Your task to perform on an android device: toggle wifi Image 0: 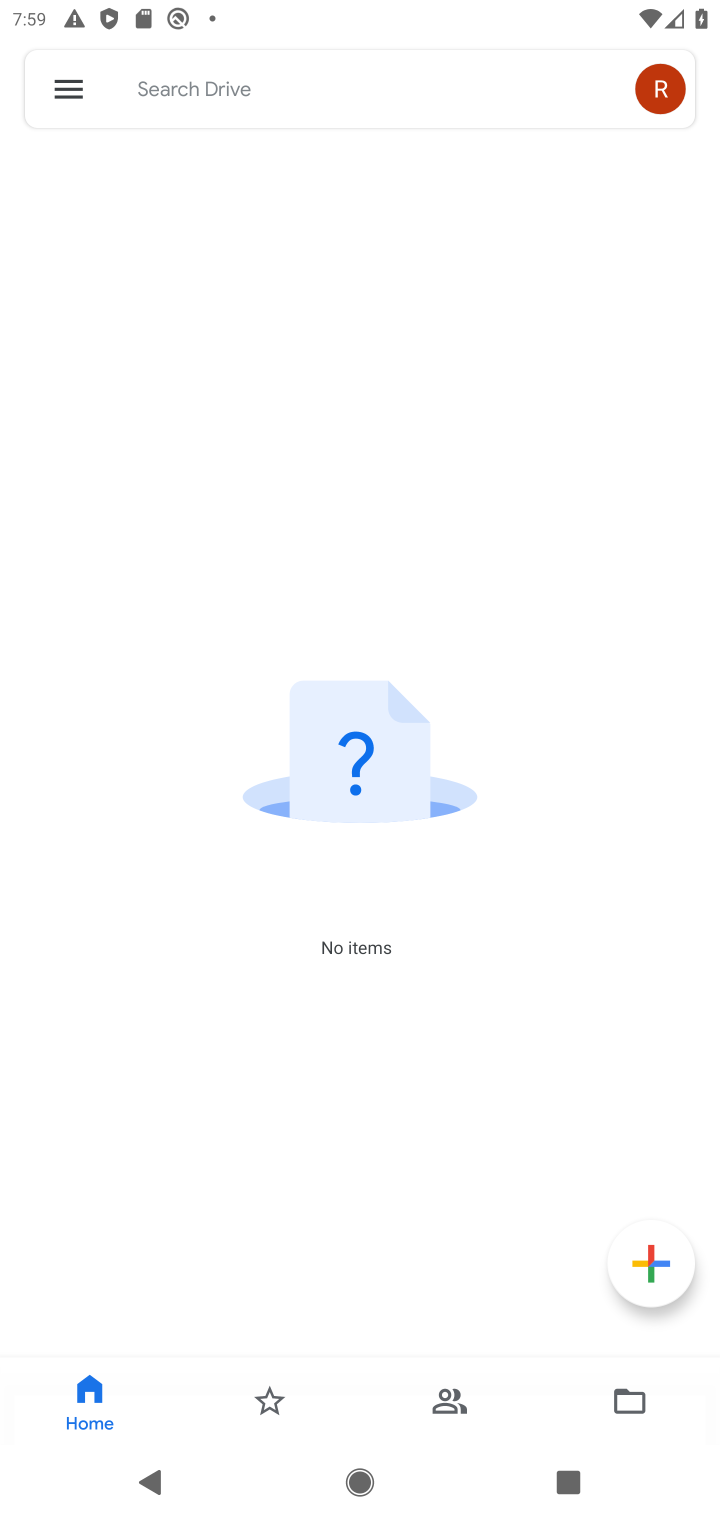
Step 0: press home button
Your task to perform on an android device: toggle wifi Image 1: 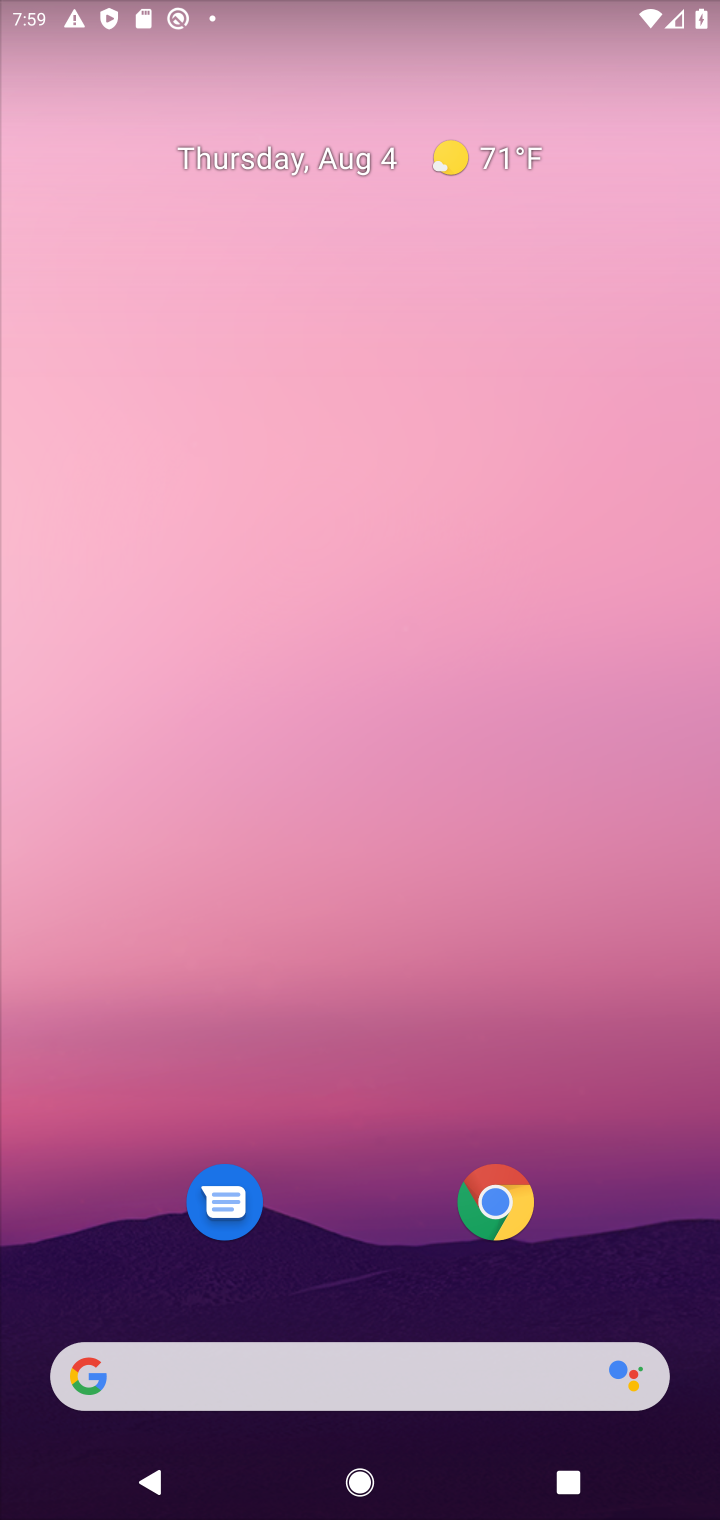
Step 1: drag from (382, 887) to (382, 339)
Your task to perform on an android device: toggle wifi Image 2: 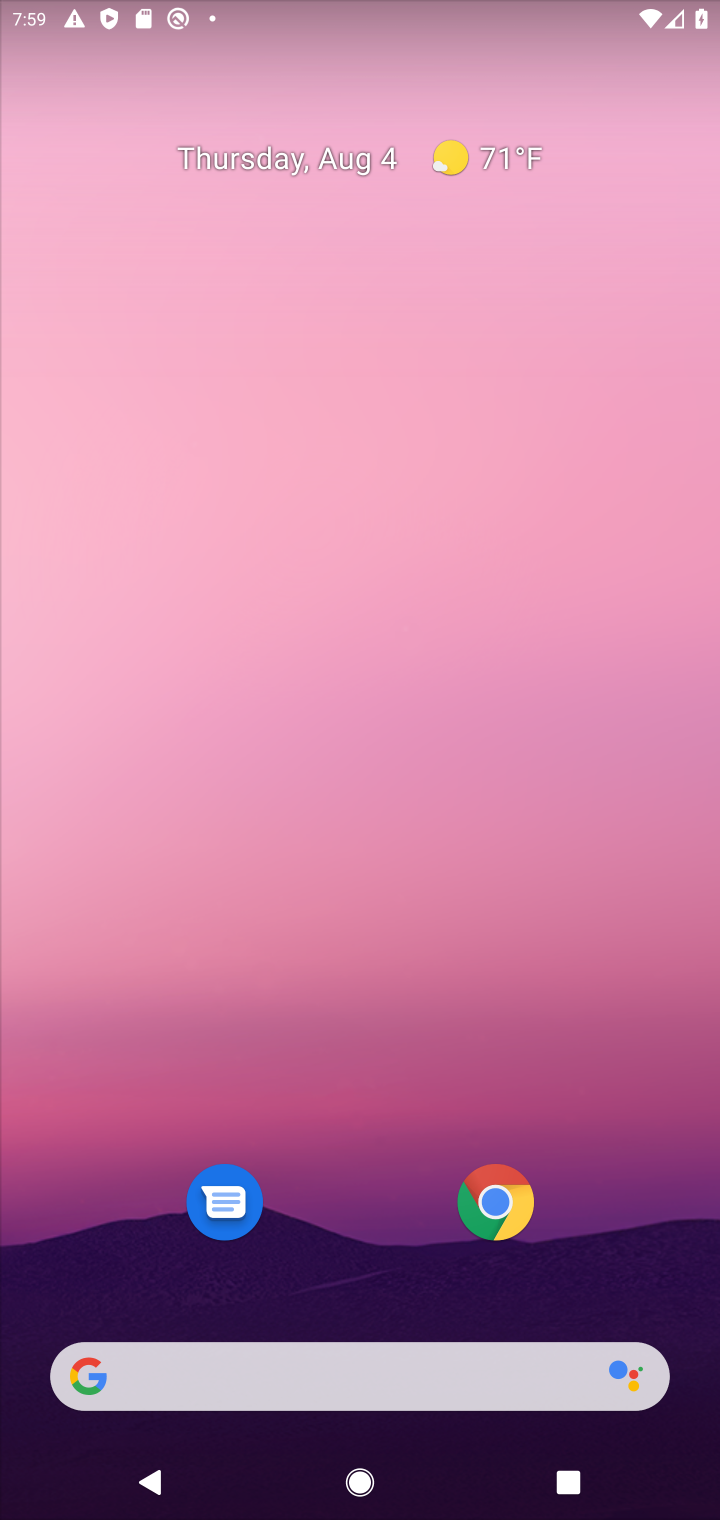
Step 2: drag from (338, 1234) to (367, 489)
Your task to perform on an android device: toggle wifi Image 3: 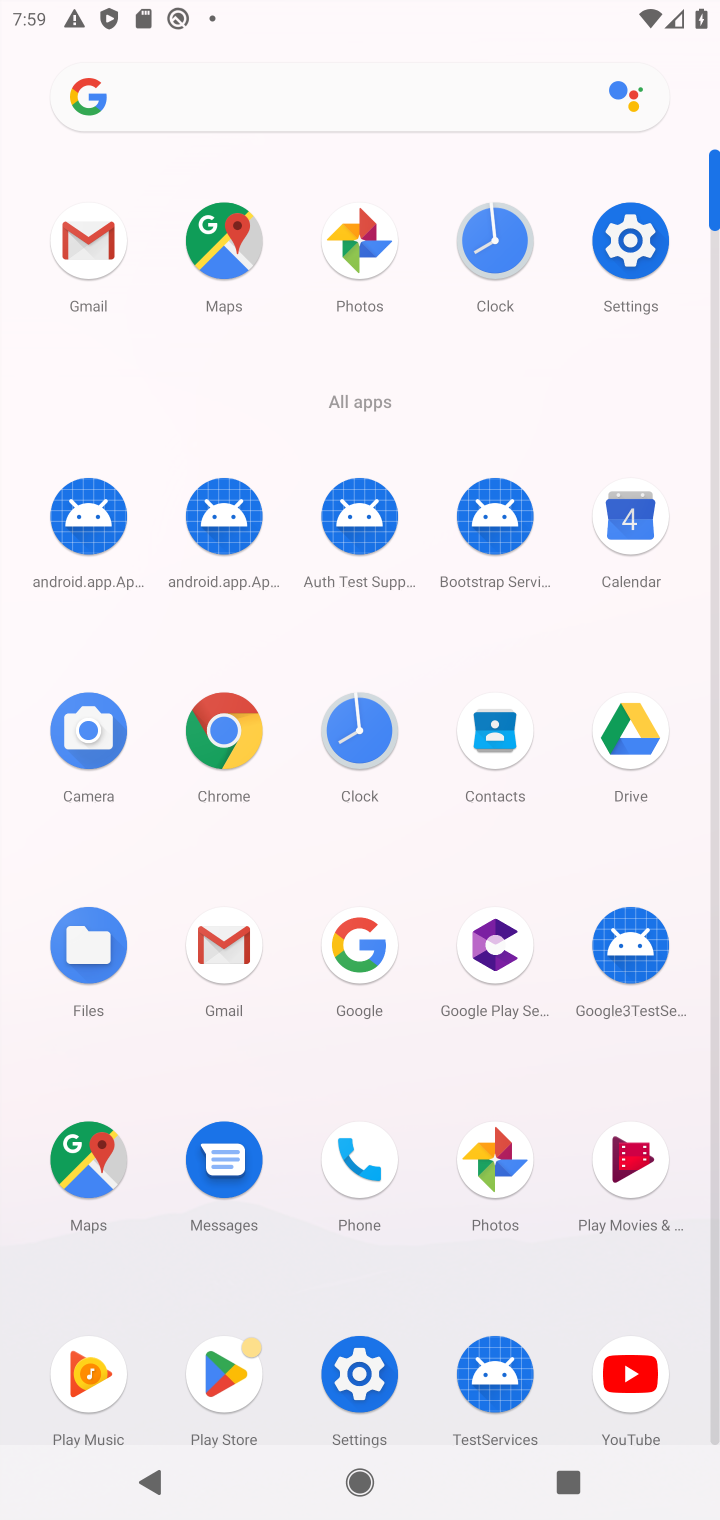
Step 3: click (617, 248)
Your task to perform on an android device: toggle wifi Image 4: 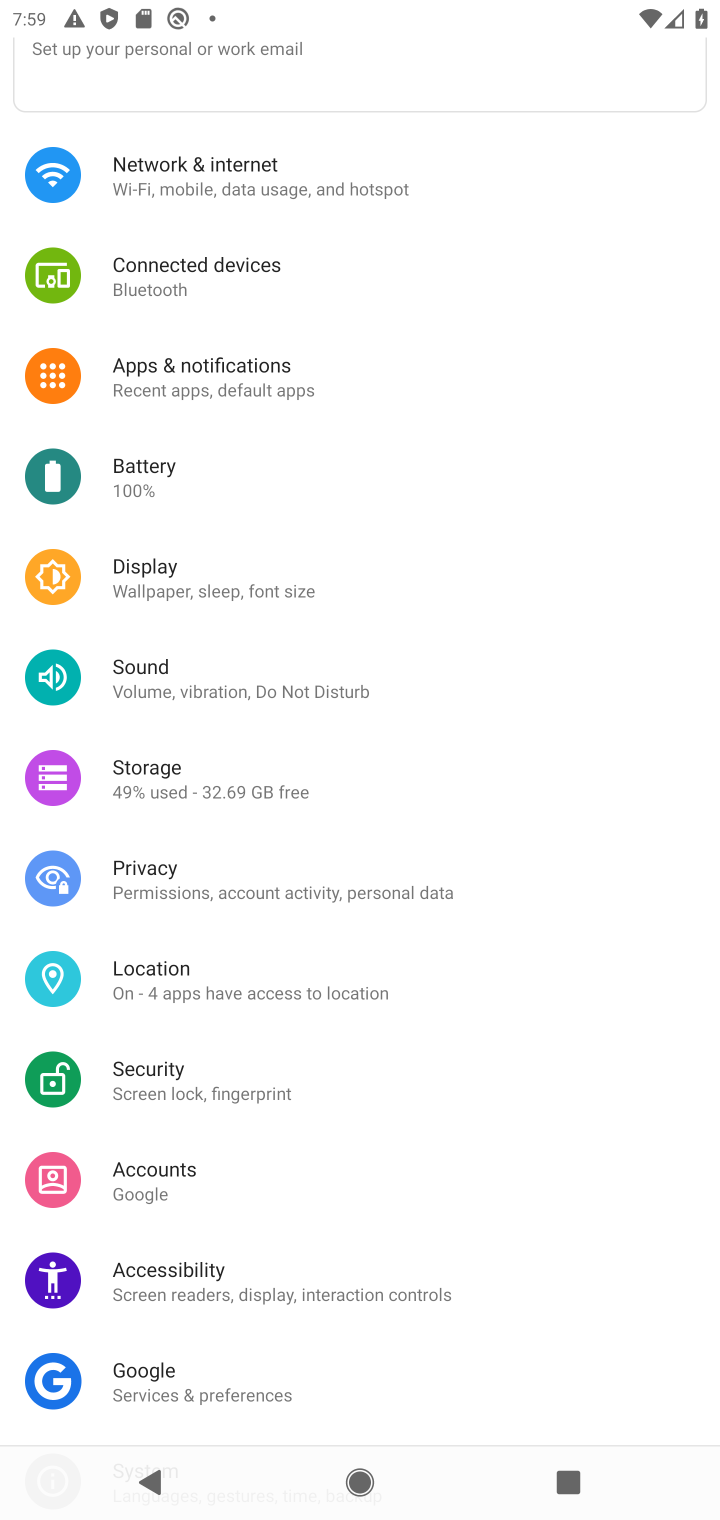
Step 4: click (161, 182)
Your task to perform on an android device: toggle wifi Image 5: 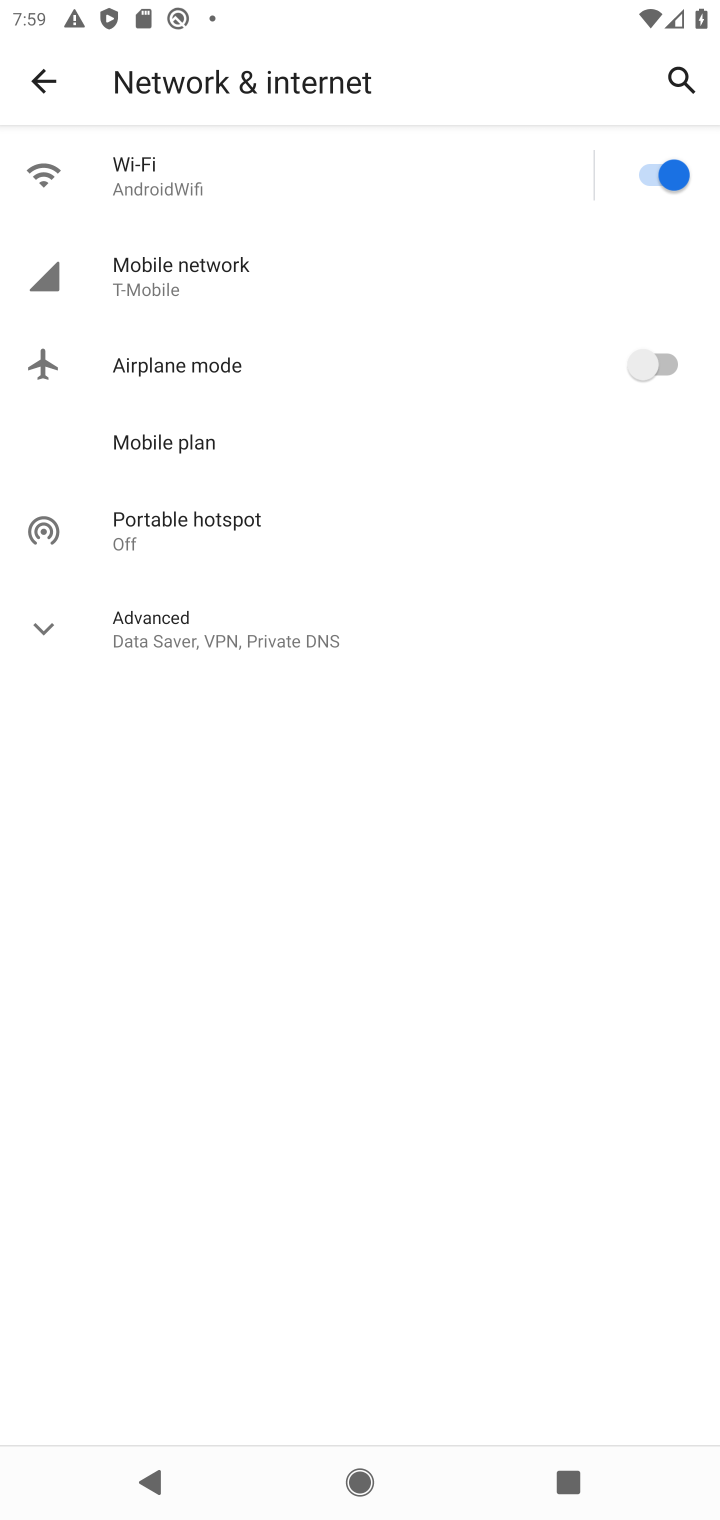
Step 5: click (630, 176)
Your task to perform on an android device: toggle wifi Image 6: 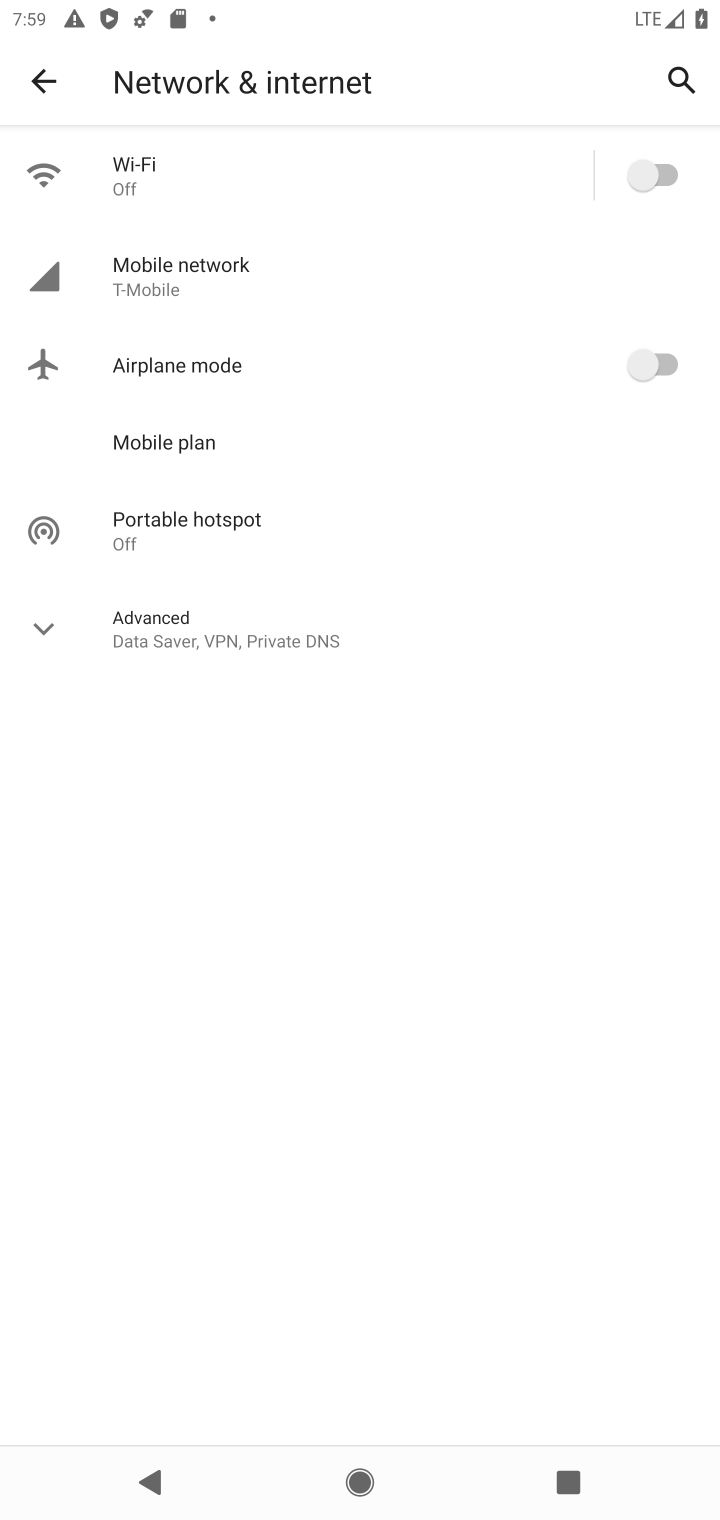
Step 6: task complete